Your task to perform on an android device: turn on improve location accuracy Image 0: 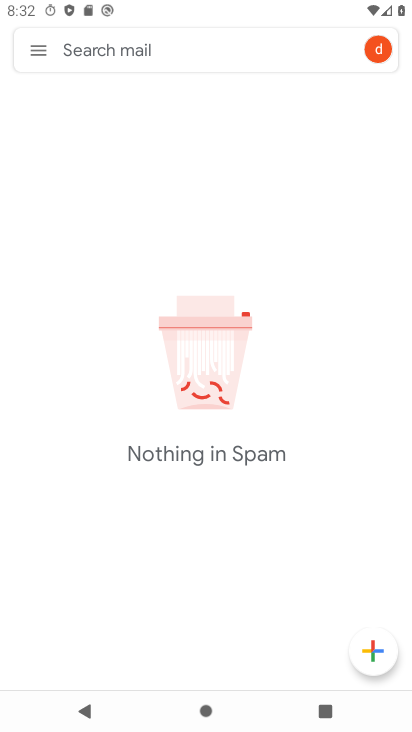
Step 0: press home button
Your task to perform on an android device: turn on improve location accuracy Image 1: 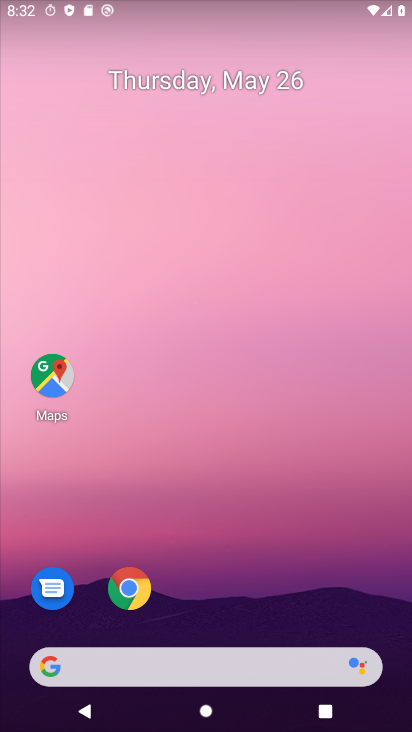
Step 1: drag from (269, 617) to (310, 2)
Your task to perform on an android device: turn on improve location accuracy Image 2: 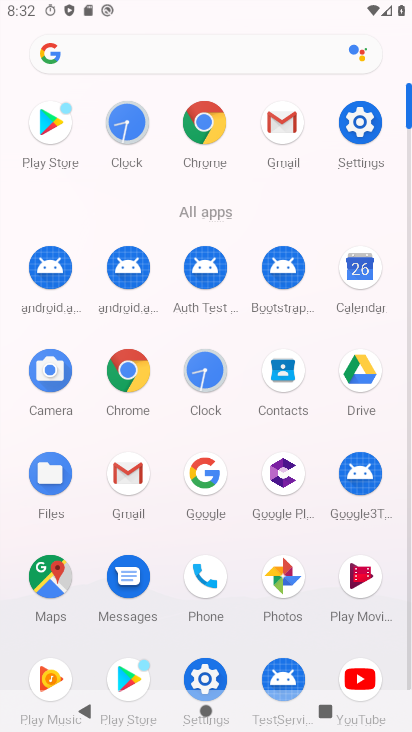
Step 2: click (363, 135)
Your task to perform on an android device: turn on improve location accuracy Image 3: 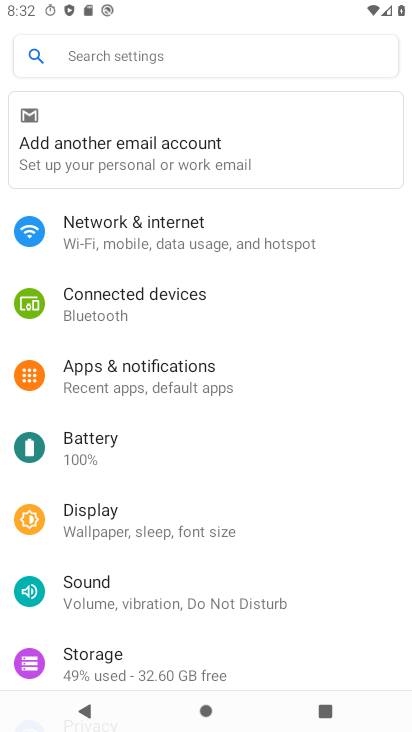
Step 3: drag from (163, 627) to (185, 246)
Your task to perform on an android device: turn on improve location accuracy Image 4: 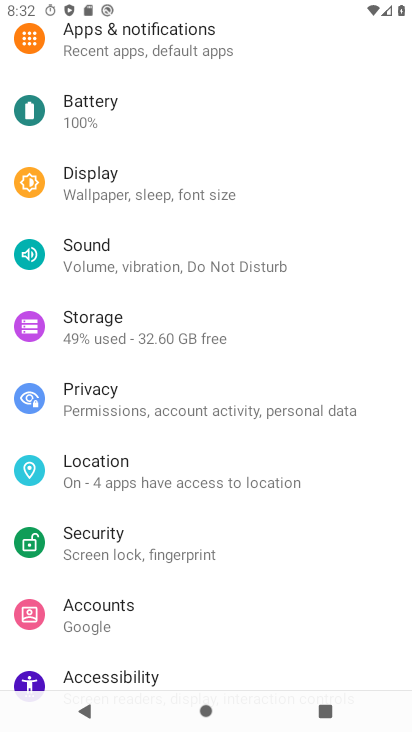
Step 4: click (196, 477)
Your task to perform on an android device: turn on improve location accuracy Image 5: 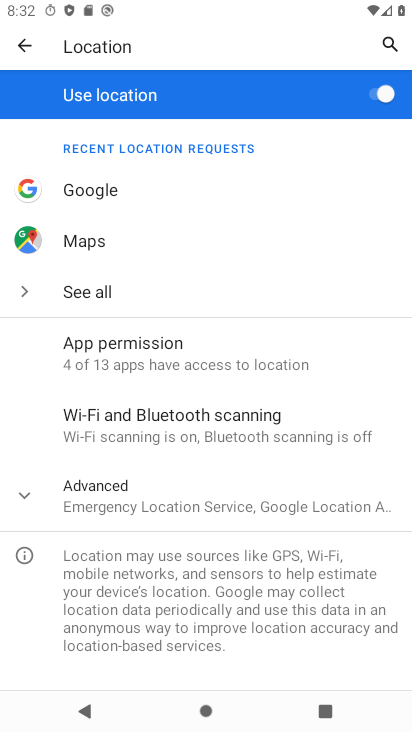
Step 5: click (151, 478)
Your task to perform on an android device: turn on improve location accuracy Image 6: 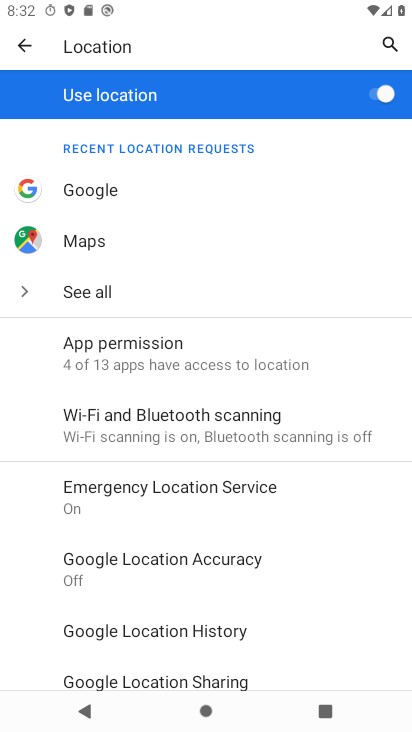
Step 6: click (153, 563)
Your task to perform on an android device: turn on improve location accuracy Image 7: 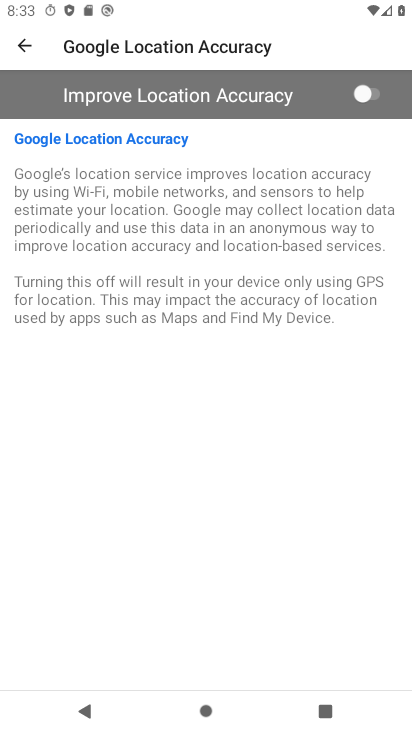
Step 7: task complete